Your task to perform on an android device: Go to Google Image 0: 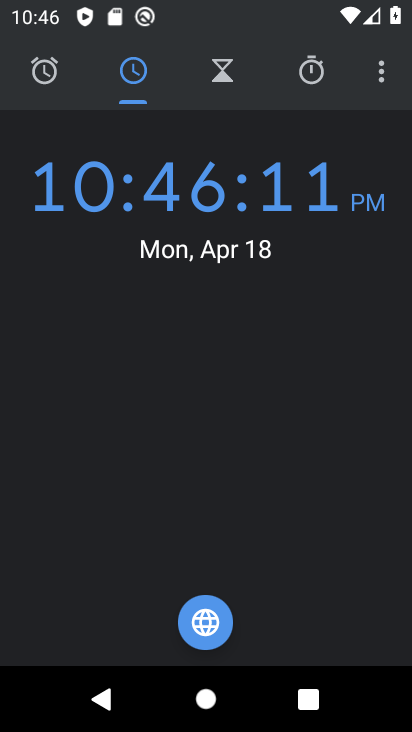
Step 0: drag from (293, 21) to (226, 691)
Your task to perform on an android device: Go to Google Image 1: 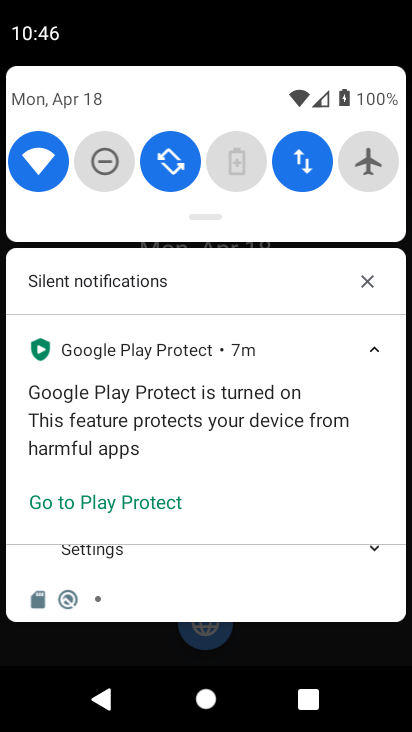
Step 1: drag from (210, 92) to (226, 654)
Your task to perform on an android device: Go to Google Image 2: 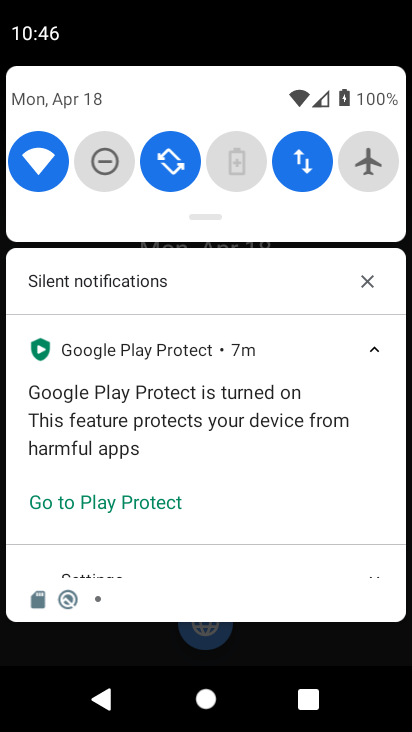
Step 2: drag from (215, 101) to (275, 533)
Your task to perform on an android device: Go to Google Image 3: 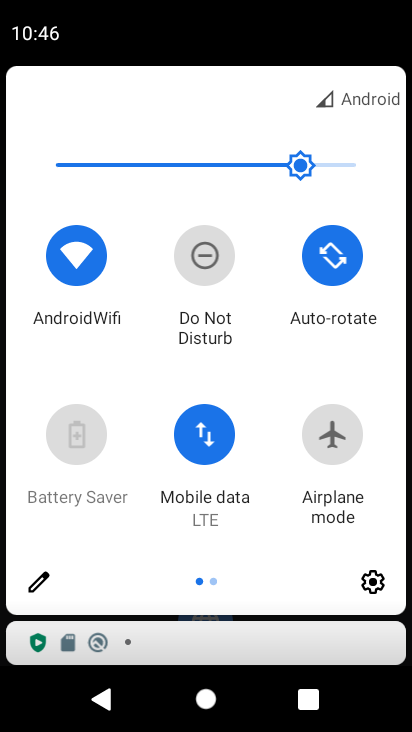
Step 3: click (385, 592)
Your task to perform on an android device: Go to Google Image 4: 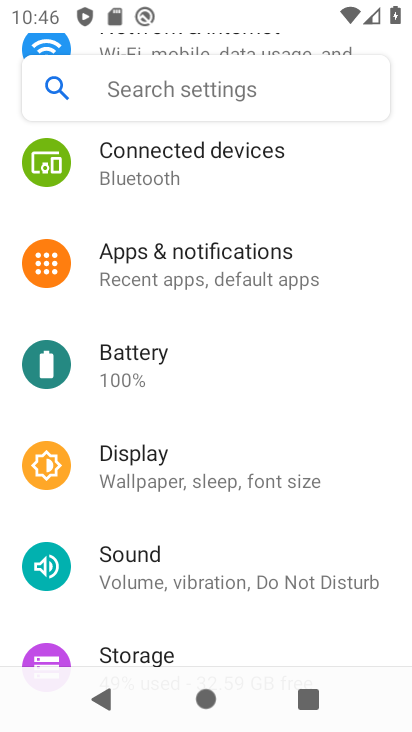
Step 4: press home button
Your task to perform on an android device: Go to Google Image 5: 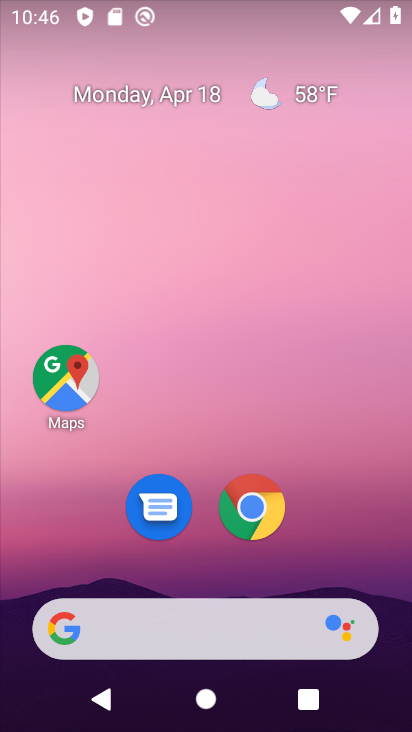
Step 5: click (74, 623)
Your task to perform on an android device: Go to Google Image 6: 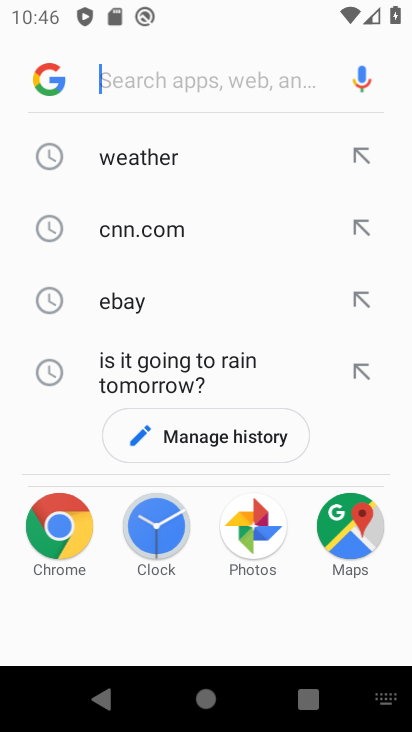
Step 6: task complete